Your task to perform on an android device: turn off sleep mode Image 0: 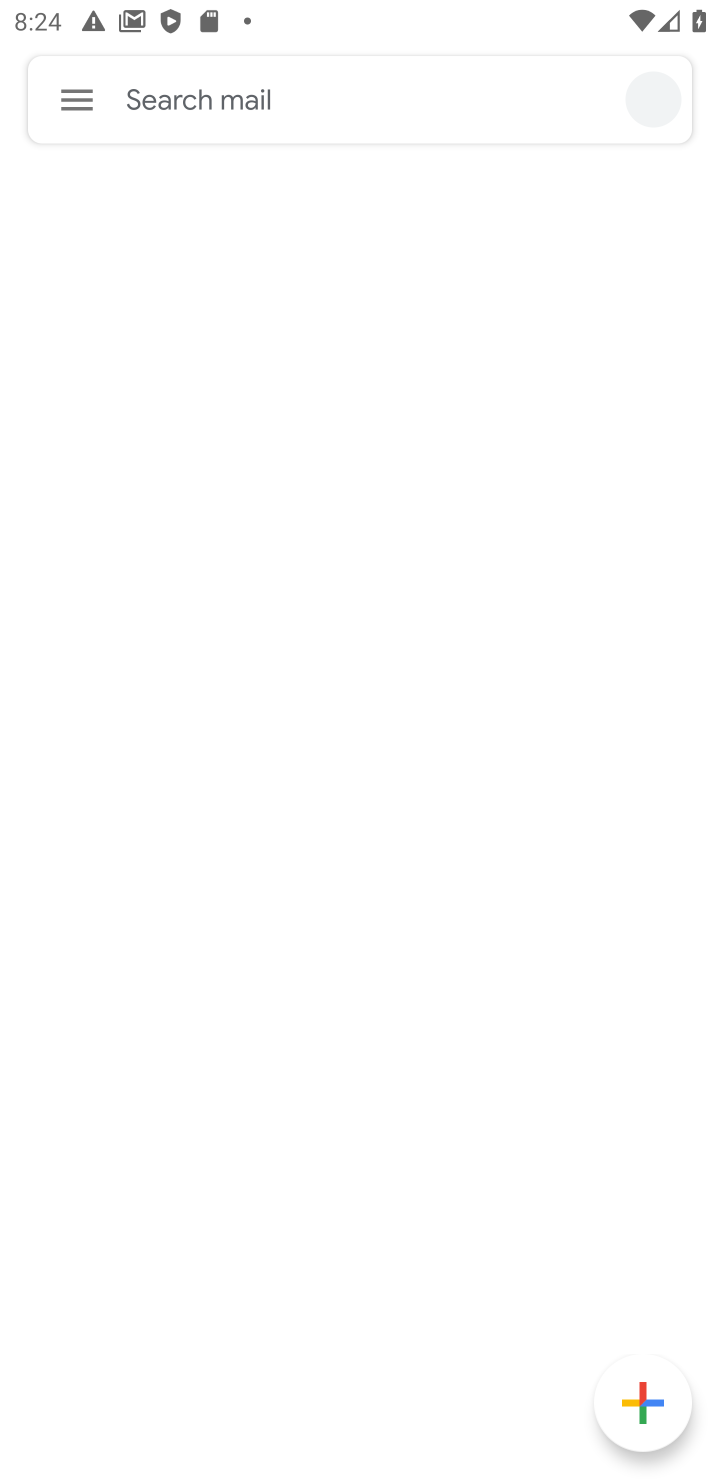
Step 0: press home button
Your task to perform on an android device: turn off sleep mode Image 1: 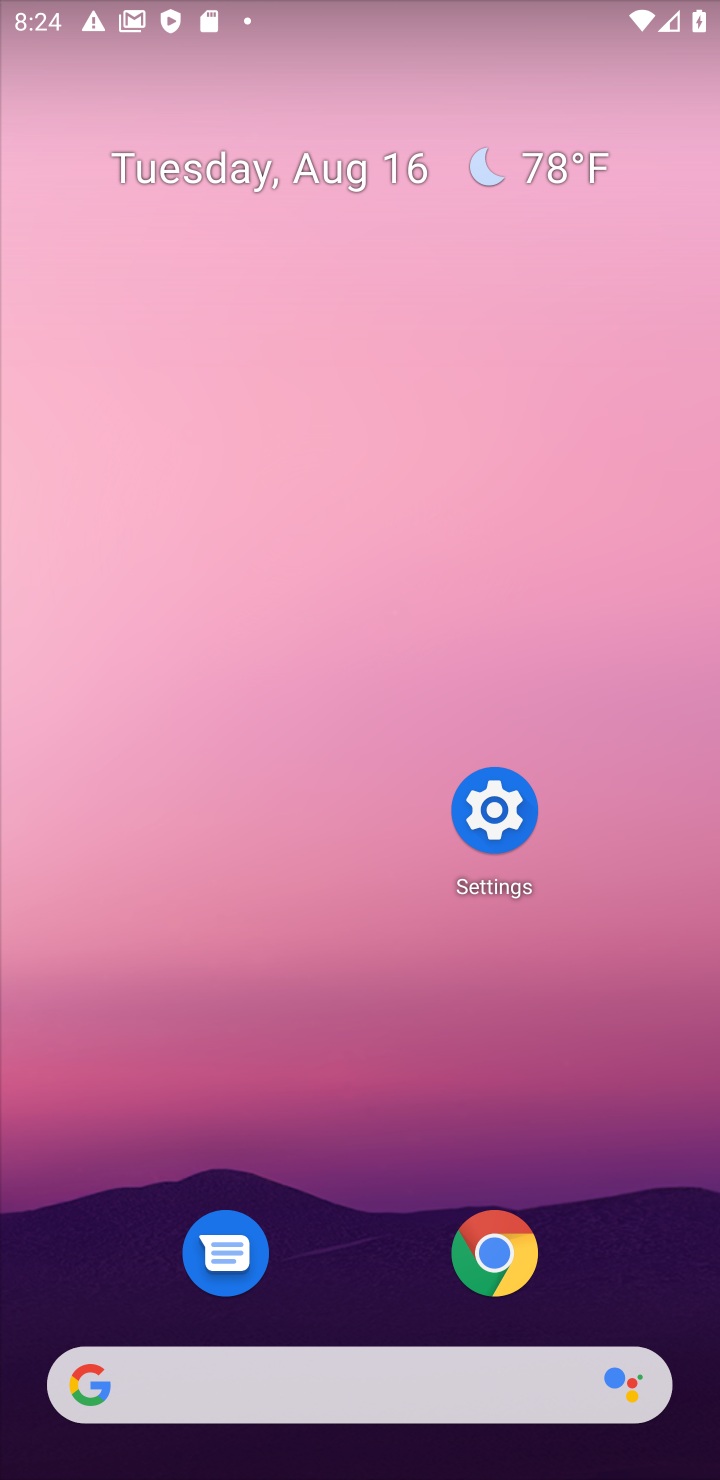
Step 1: click (495, 814)
Your task to perform on an android device: turn off sleep mode Image 2: 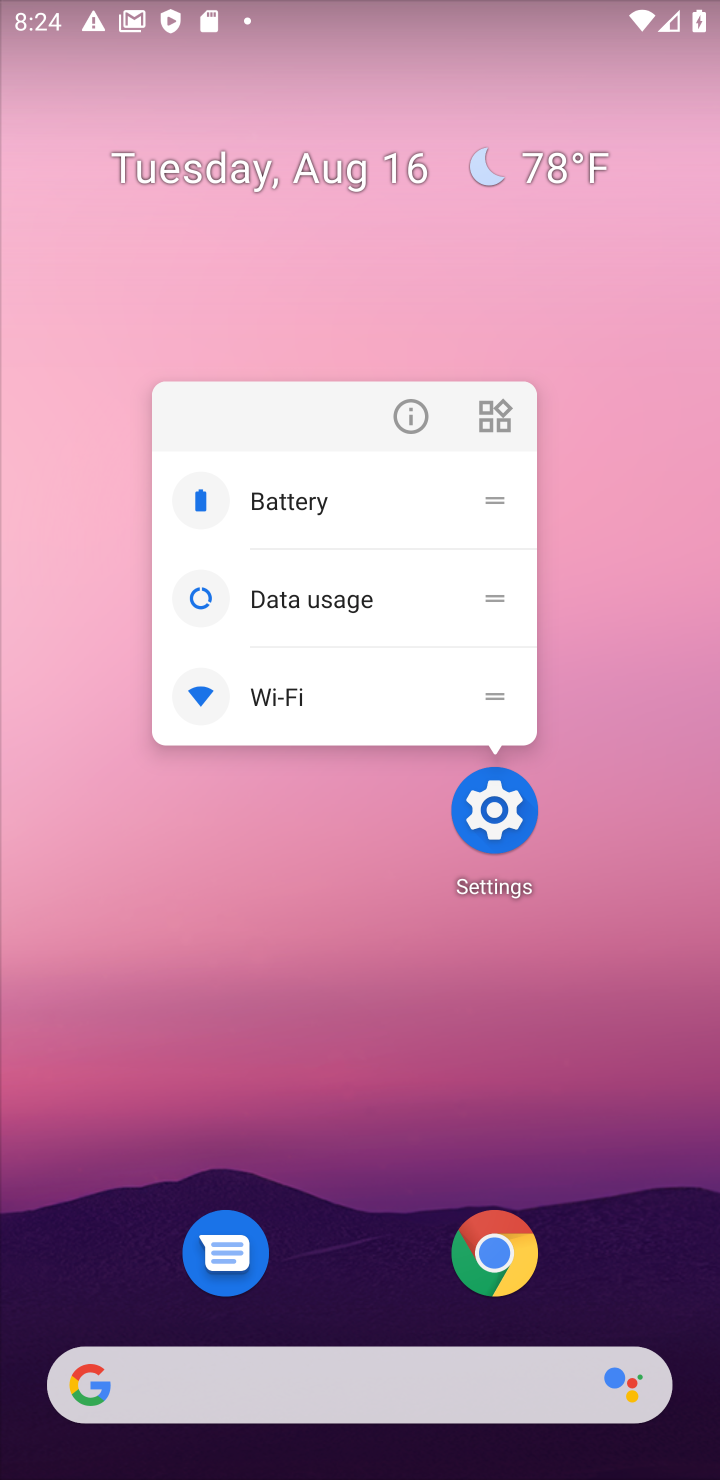
Step 2: click (486, 814)
Your task to perform on an android device: turn off sleep mode Image 3: 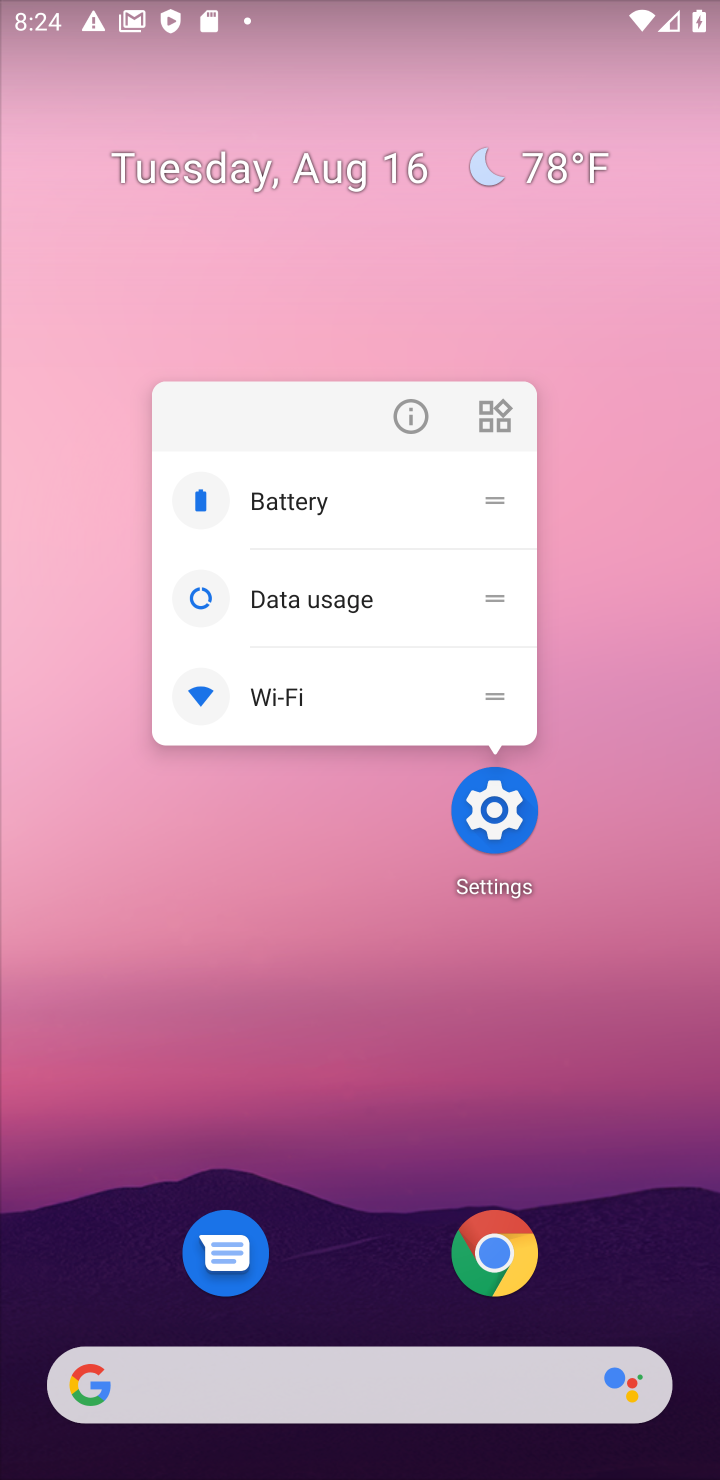
Step 3: click (486, 810)
Your task to perform on an android device: turn off sleep mode Image 4: 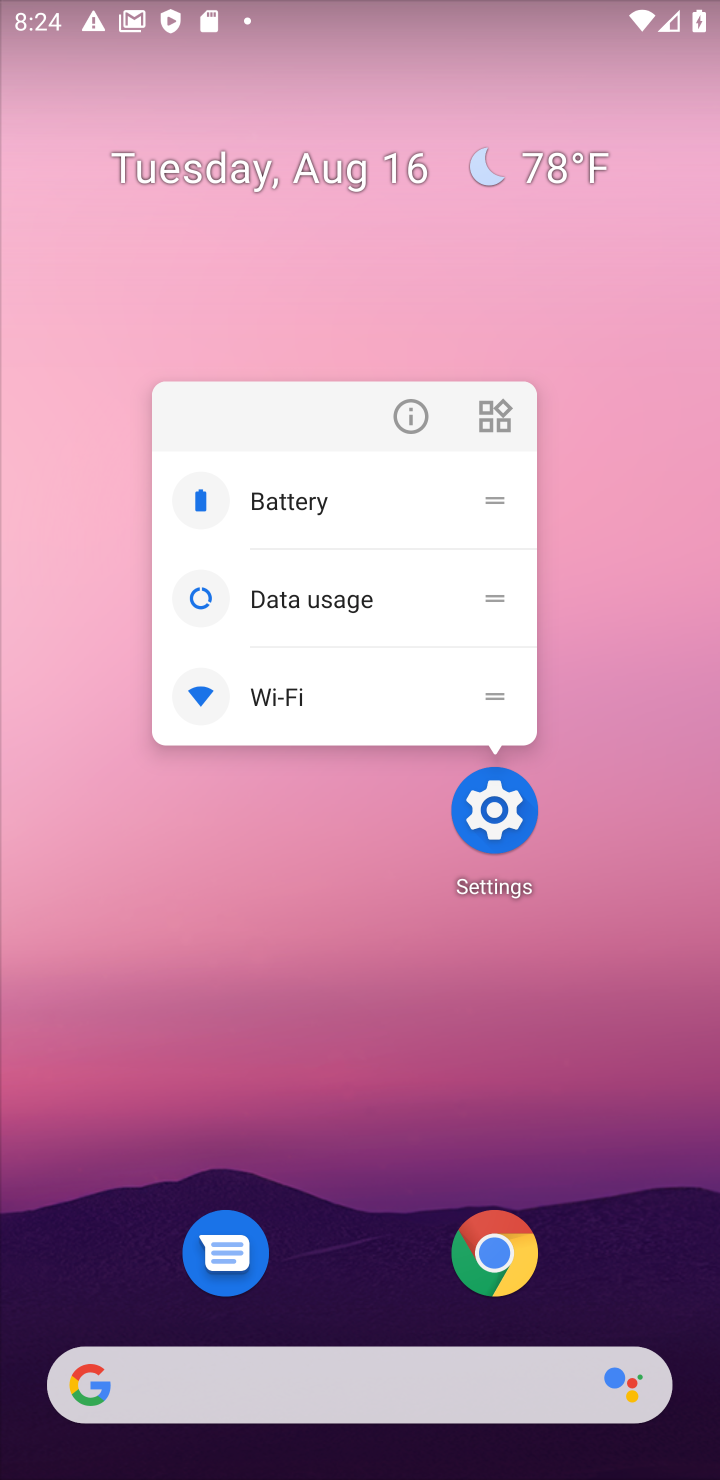
Step 4: click (514, 782)
Your task to perform on an android device: turn off sleep mode Image 5: 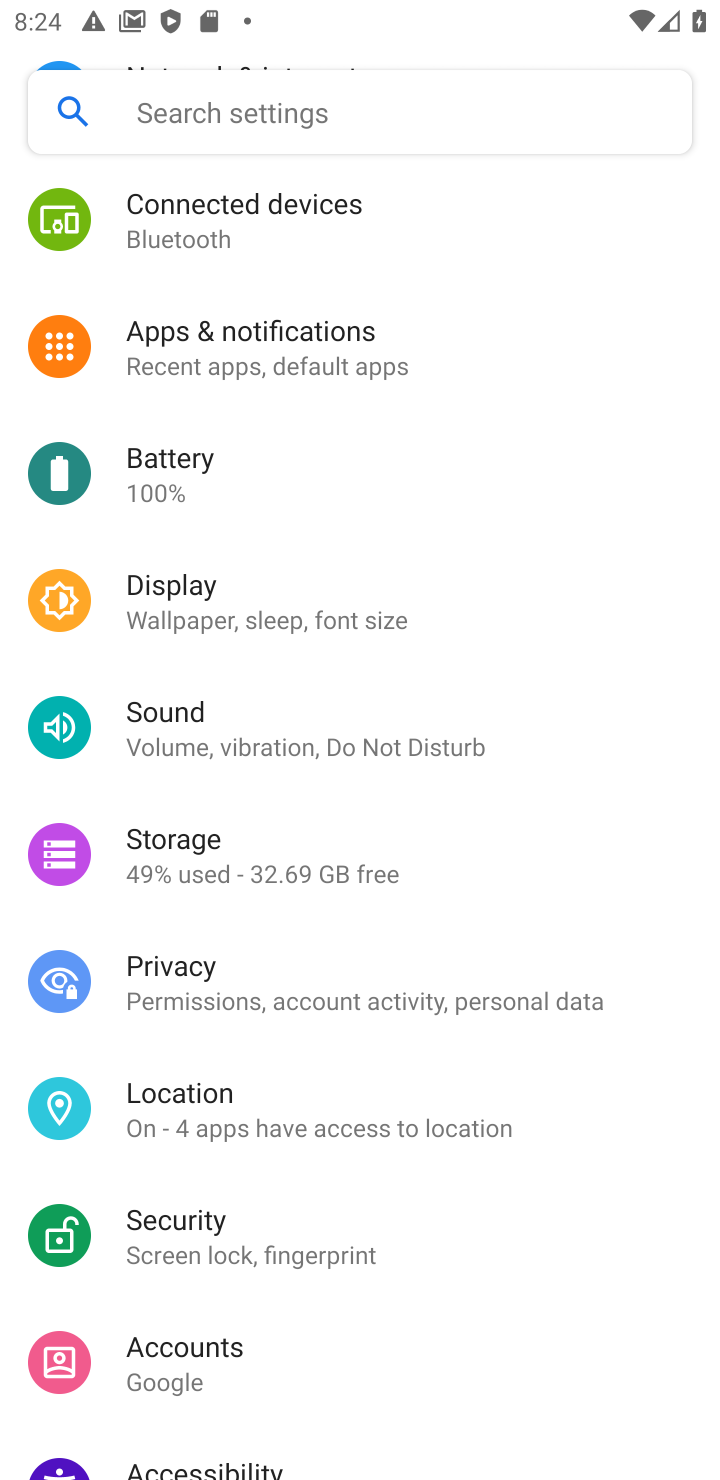
Step 5: click (514, 791)
Your task to perform on an android device: turn off sleep mode Image 6: 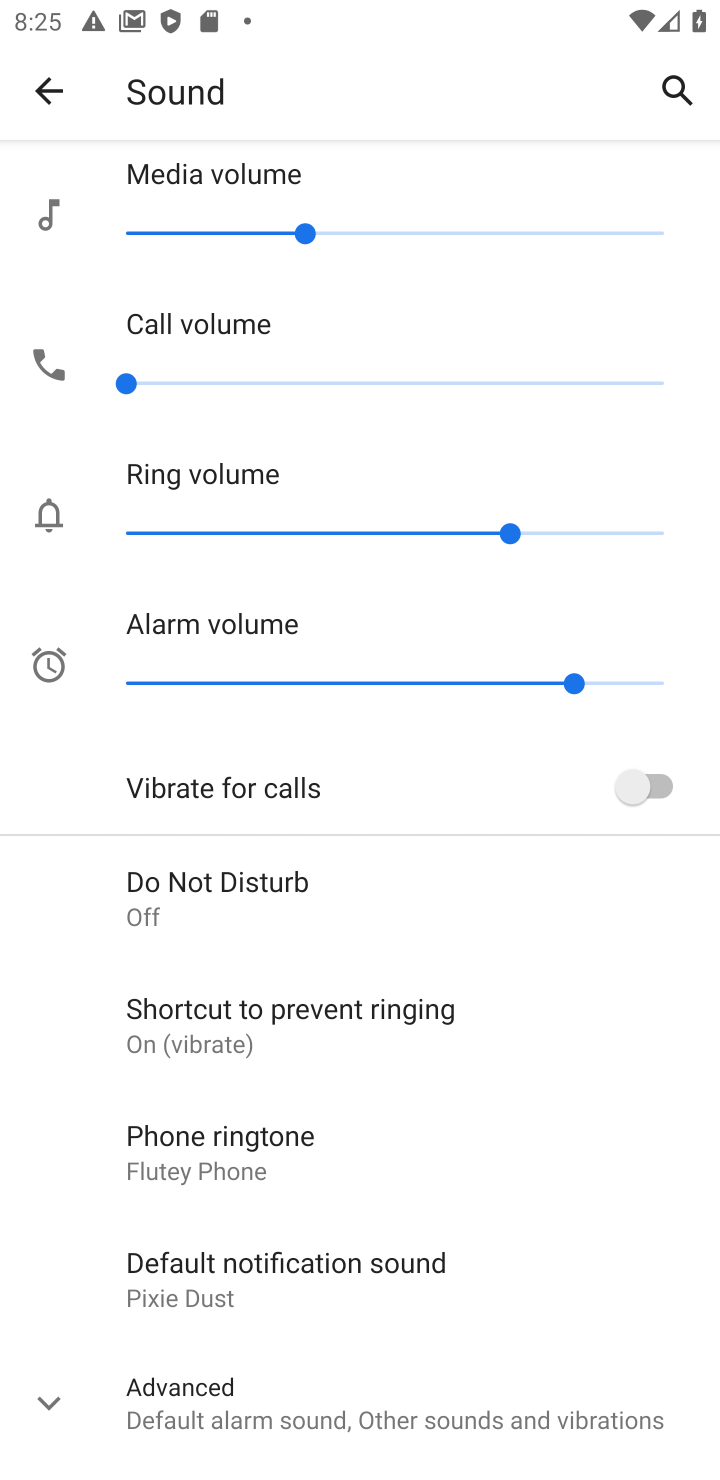
Step 6: click (48, 89)
Your task to perform on an android device: turn off sleep mode Image 7: 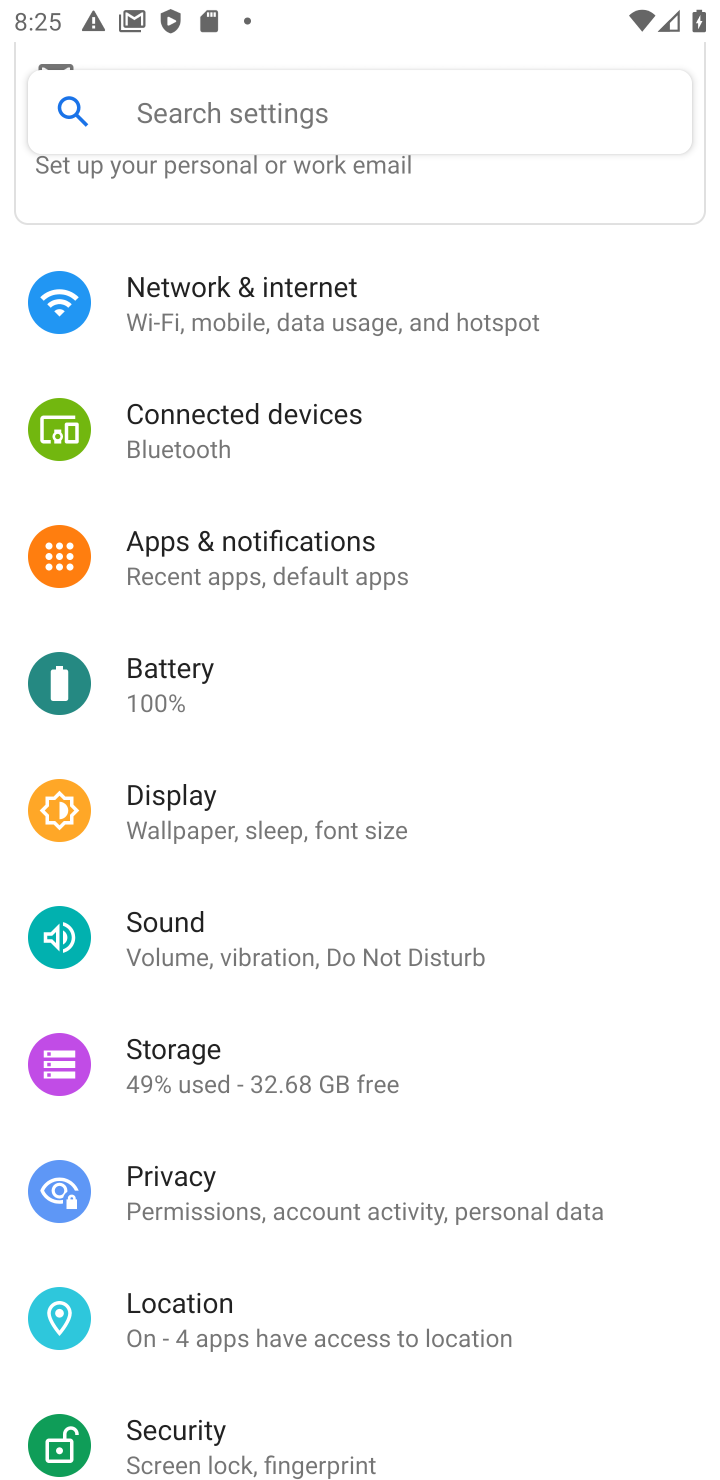
Step 7: click (257, 815)
Your task to perform on an android device: turn off sleep mode Image 8: 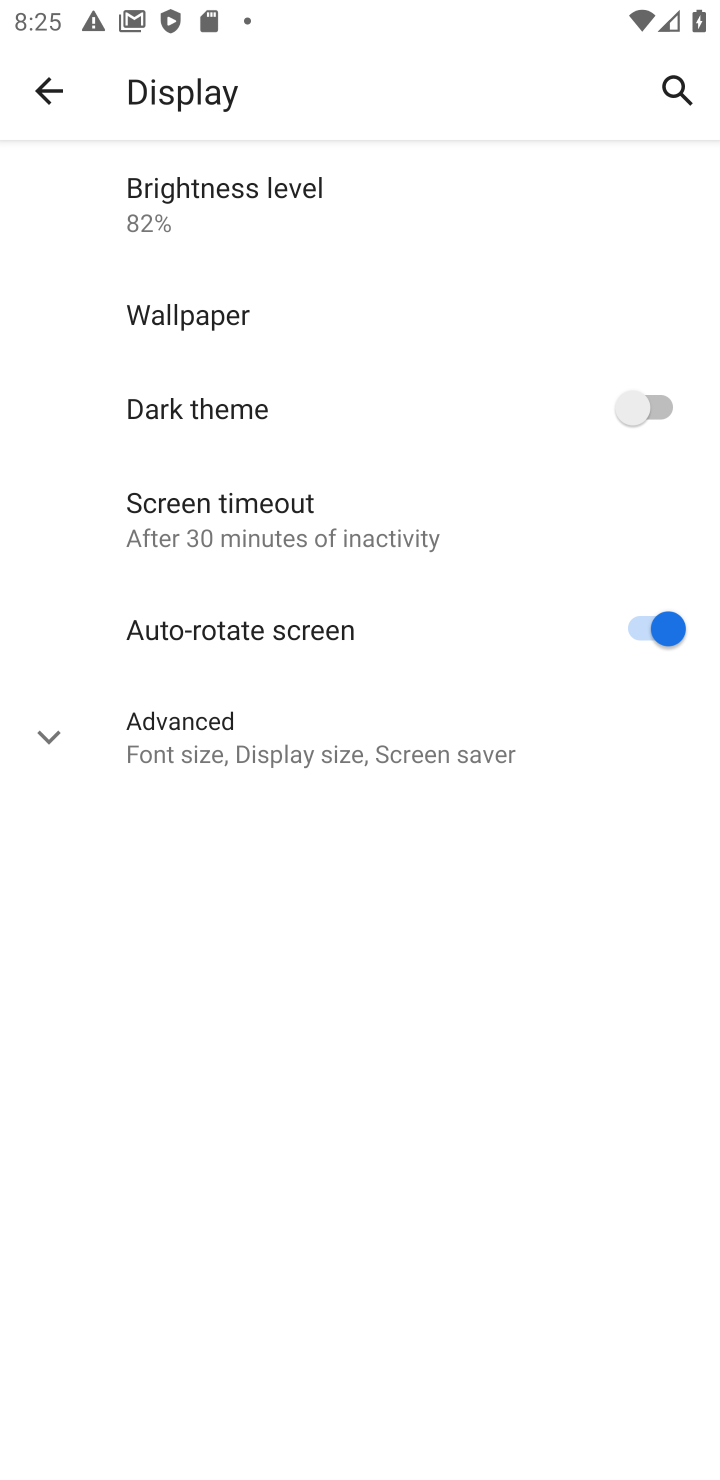
Step 8: task complete